Your task to perform on an android device: Open the calendar app, open the side menu, and click the "Day" option Image 0: 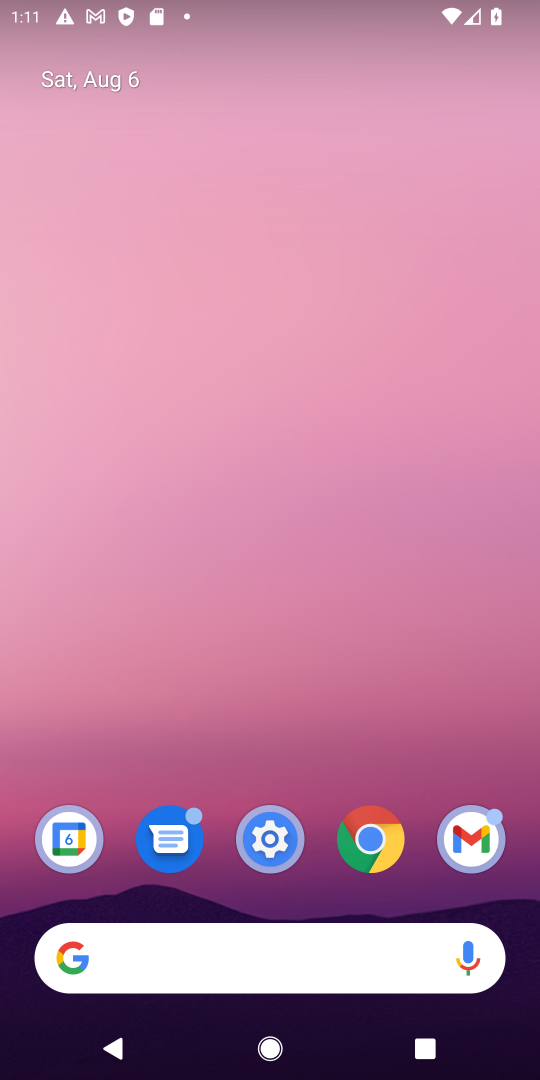
Step 0: click (83, 841)
Your task to perform on an android device: Open the calendar app, open the side menu, and click the "Day" option Image 1: 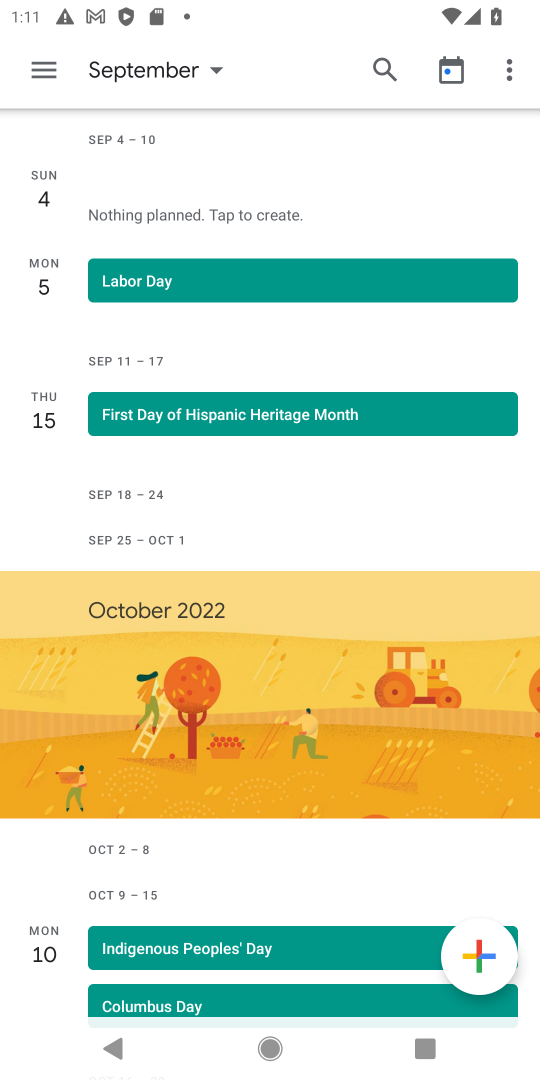
Step 1: click (57, 61)
Your task to perform on an android device: Open the calendar app, open the side menu, and click the "Day" option Image 2: 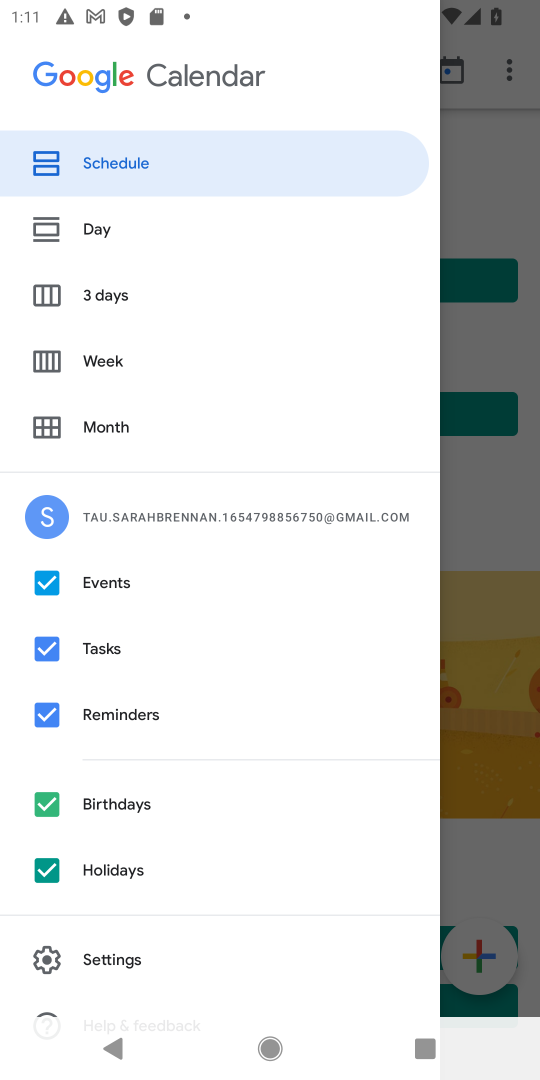
Step 2: click (140, 244)
Your task to perform on an android device: Open the calendar app, open the side menu, and click the "Day" option Image 3: 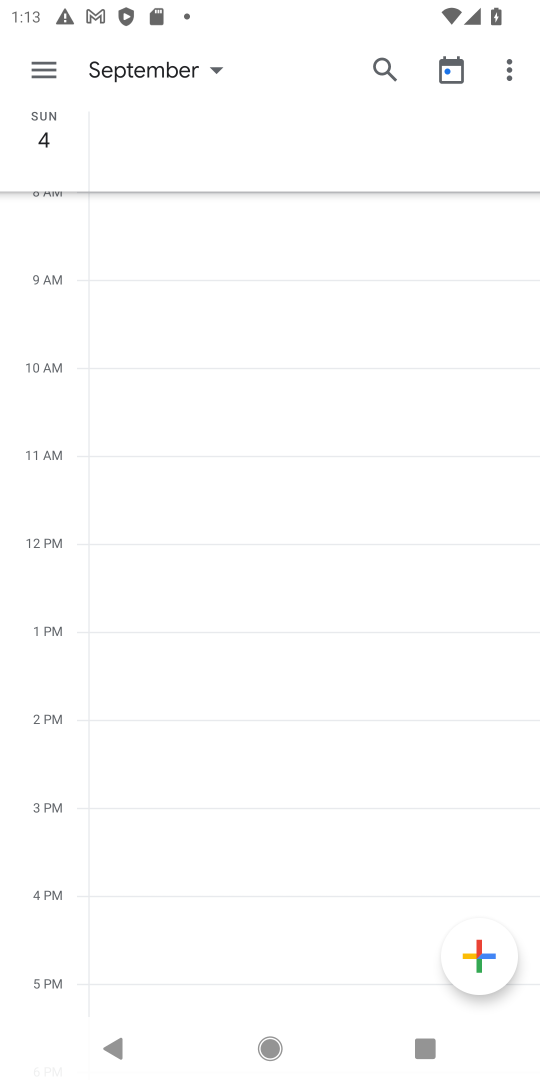
Step 3: click (41, 64)
Your task to perform on an android device: Open the calendar app, open the side menu, and click the "Day" option Image 4: 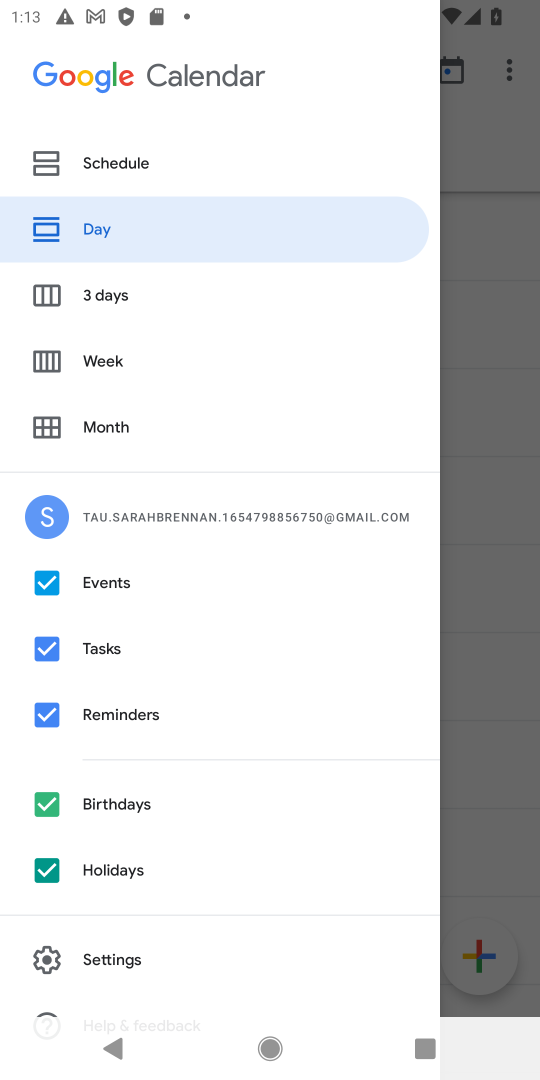
Step 4: click (113, 229)
Your task to perform on an android device: Open the calendar app, open the side menu, and click the "Day" option Image 5: 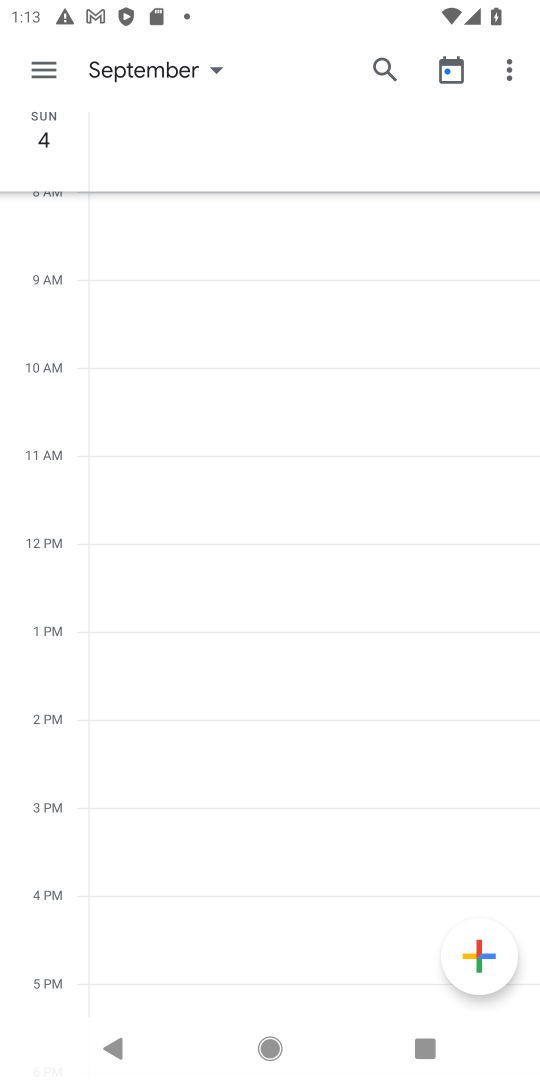
Step 5: task complete